Your task to perform on an android device: Open calendar and show me the first week of next month Image 0: 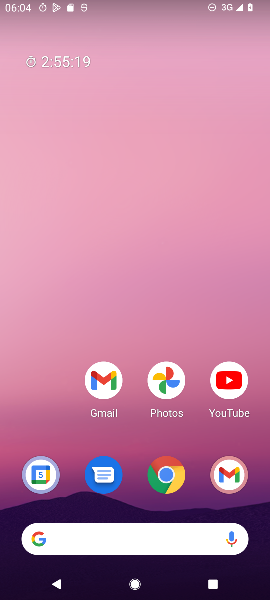
Step 0: press home button
Your task to perform on an android device: Open calendar and show me the first week of next month Image 1: 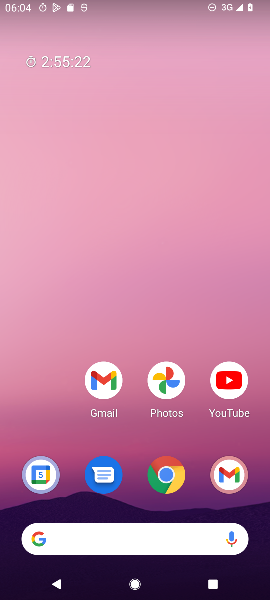
Step 1: drag from (39, 412) to (54, 166)
Your task to perform on an android device: Open calendar and show me the first week of next month Image 2: 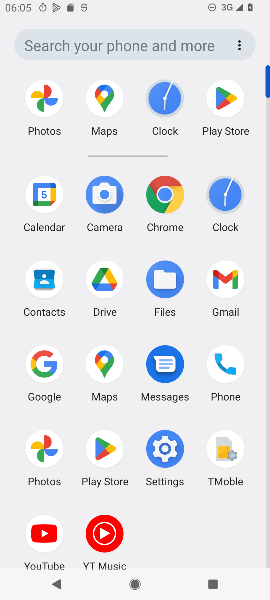
Step 2: click (44, 201)
Your task to perform on an android device: Open calendar and show me the first week of next month Image 3: 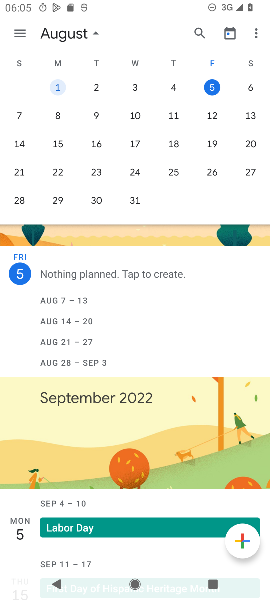
Step 3: drag from (255, 97) to (28, 100)
Your task to perform on an android device: Open calendar and show me the first week of next month Image 4: 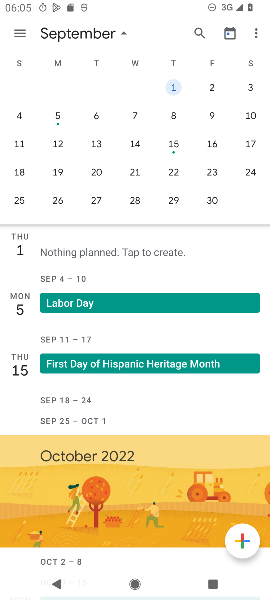
Step 4: click (179, 90)
Your task to perform on an android device: Open calendar and show me the first week of next month Image 5: 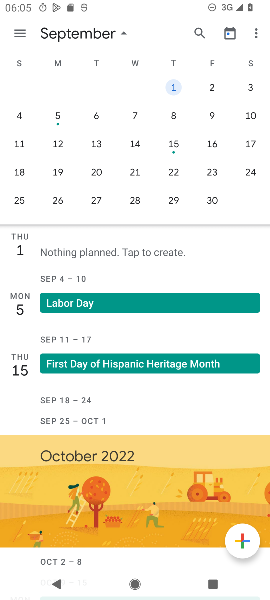
Step 5: task complete